Your task to perform on an android device: Open the Play Movies app and select the watchlist tab. Image 0: 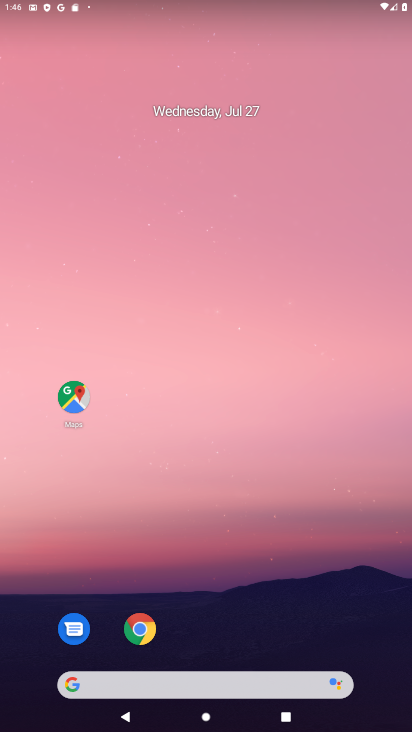
Step 0: drag from (256, 633) to (203, 130)
Your task to perform on an android device: Open the Play Movies app and select the watchlist tab. Image 1: 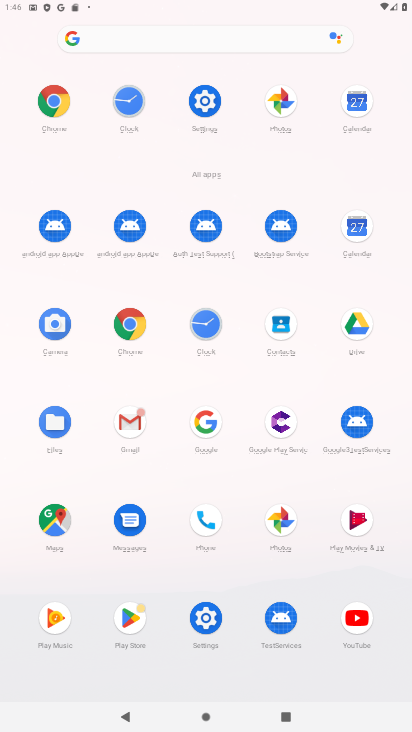
Step 1: click (339, 532)
Your task to perform on an android device: Open the Play Movies app and select the watchlist tab. Image 2: 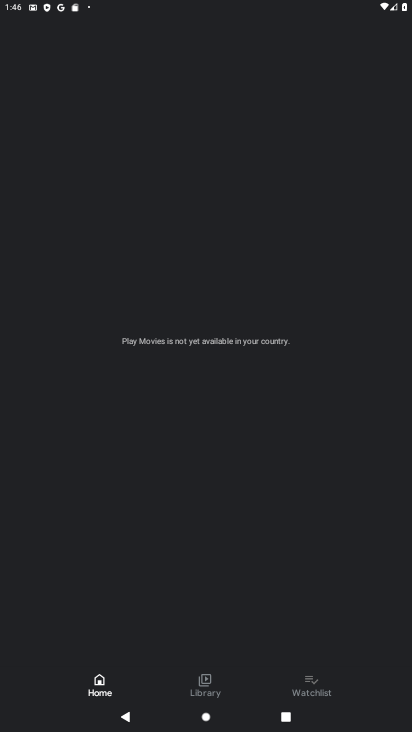
Step 2: task complete